Your task to perform on an android device: turn off smart reply in the gmail app Image 0: 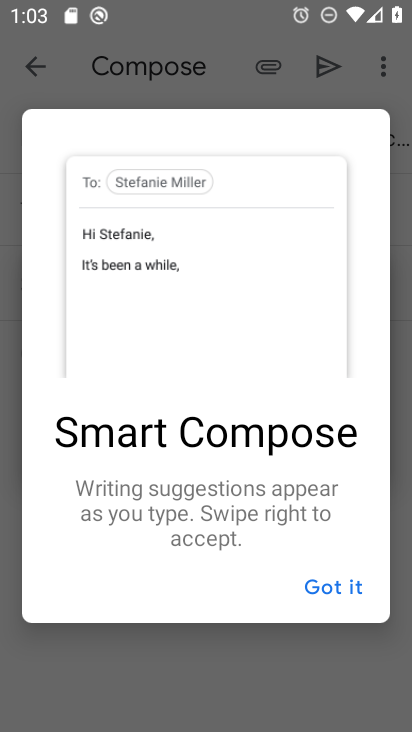
Step 0: press home button
Your task to perform on an android device: turn off smart reply in the gmail app Image 1: 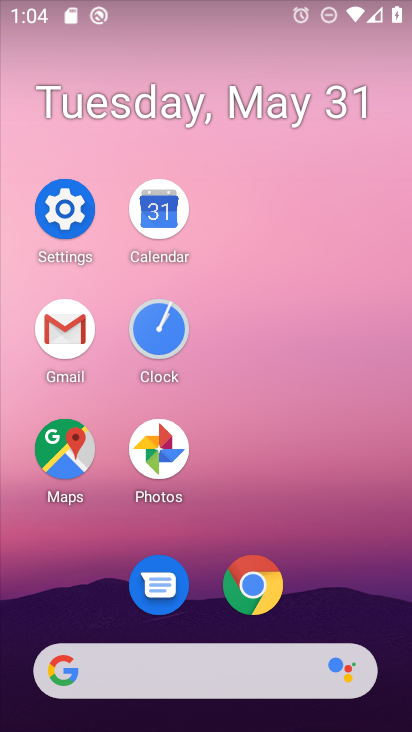
Step 1: click (75, 330)
Your task to perform on an android device: turn off smart reply in the gmail app Image 2: 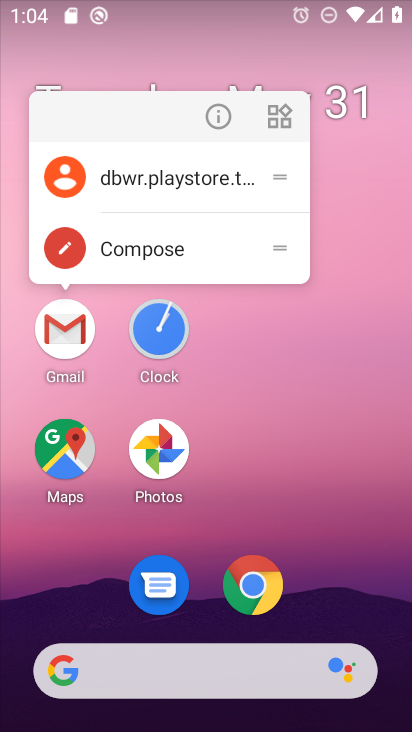
Step 2: click (78, 335)
Your task to perform on an android device: turn off smart reply in the gmail app Image 3: 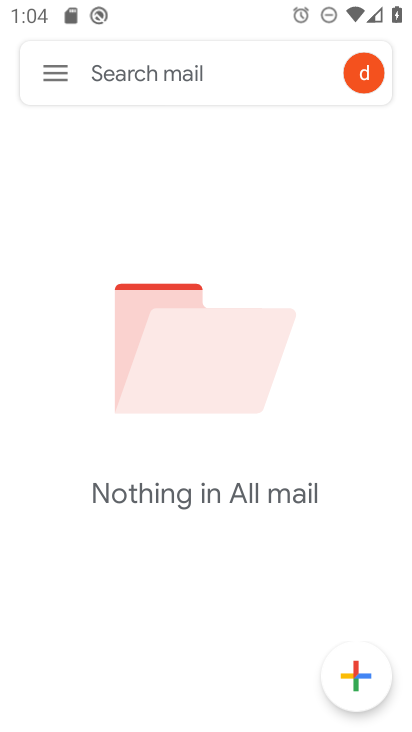
Step 3: click (46, 75)
Your task to perform on an android device: turn off smart reply in the gmail app Image 4: 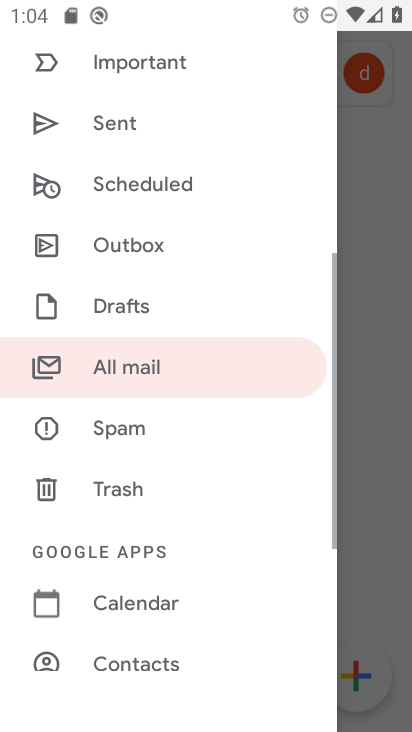
Step 4: drag from (97, 592) to (146, 172)
Your task to perform on an android device: turn off smart reply in the gmail app Image 5: 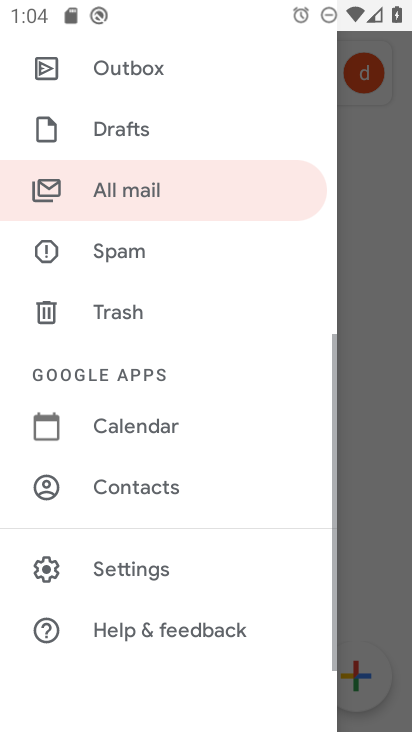
Step 5: click (146, 555)
Your task to perform on an android device: turn off smart reply in the gmail app Image 6: 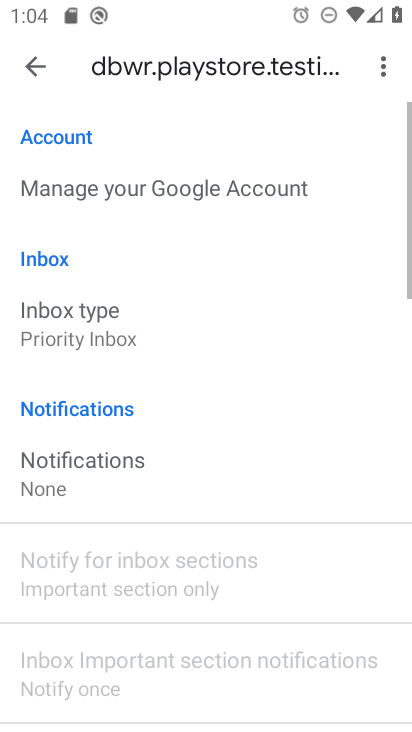
Step 6: drag from (146, 555) to (213, 185)
Your task to perform on an android device: turn off smart reply in the gmail app Image 7: 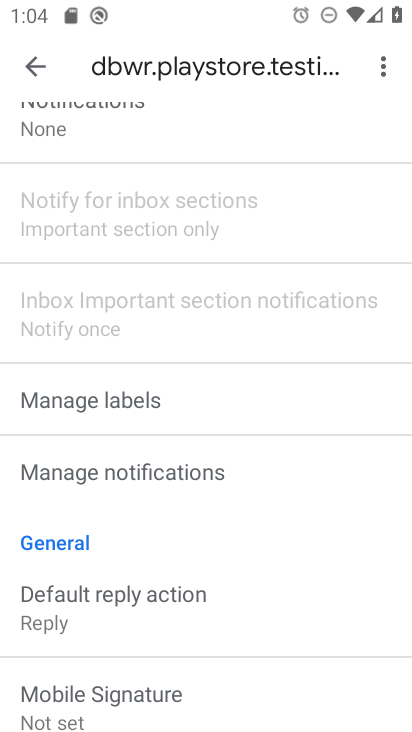
Step 7: drag from (186, 598) to (223, 191)
Your task to perform on an android device: turn off smart reply in the gmail app Image 8: 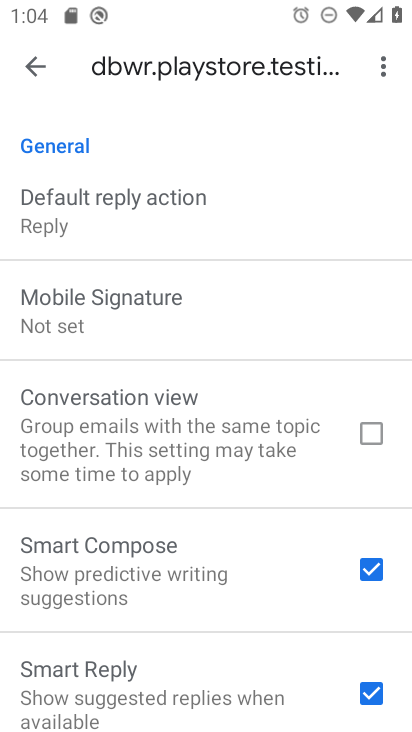
Step 8: drag from (278, 580) to (266, 252)
Your task to perform on an android device: turn off smart reply in the gmail app Image 9: 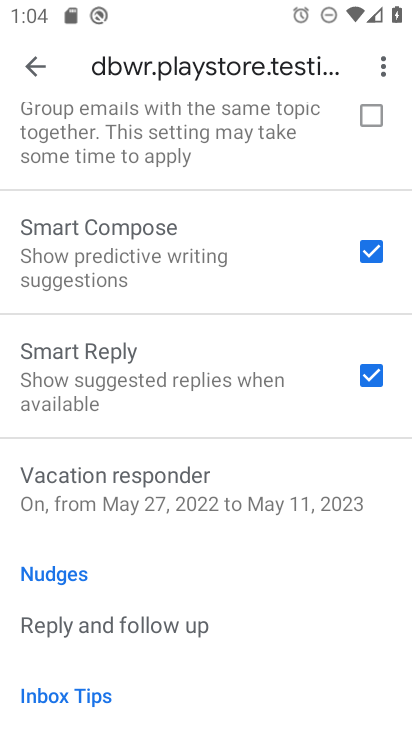
Step 9: click (382, 385)
Your task to perform on an android device: turn off smart reply in the gmail app Image 10: 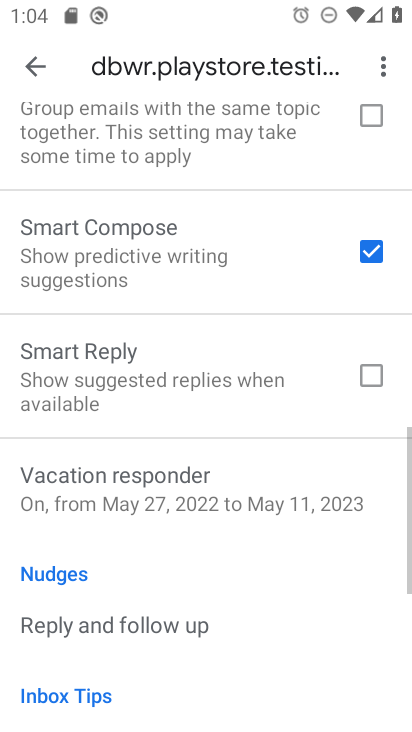
Step 10: task complete